Your task to perform on an android device: Turn off the flashlight Image 0: 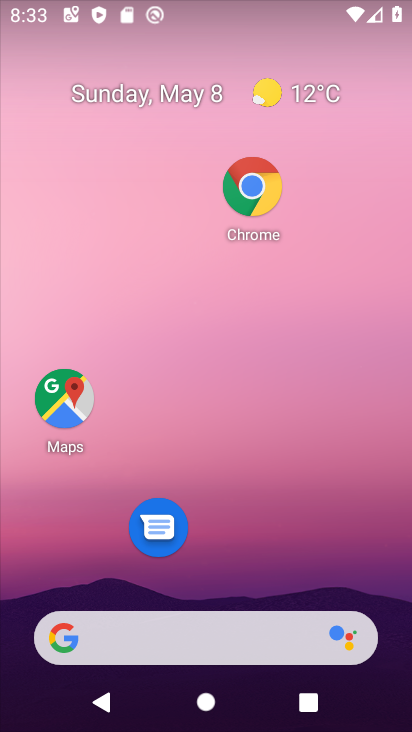
Step 0: drag from (254, 536) to (281, 321)
Your task to perform on an android device: Turn off the flashlight Image 1: 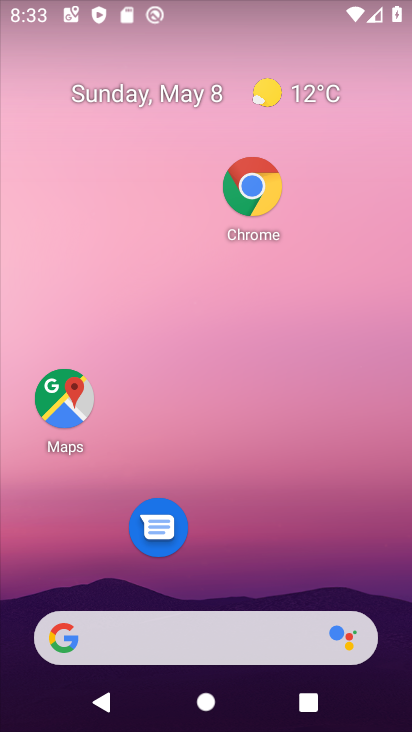
Step 1: drag from (352, 493) to (348, 266)
Your task to perform on an android device: Turn off the flashlight Image 2: 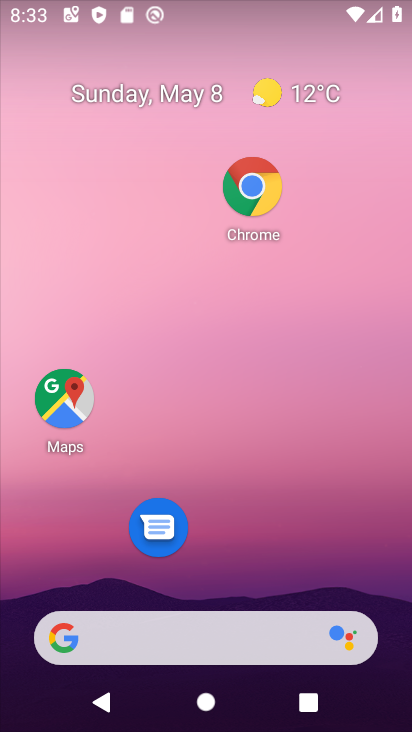
Step 2: drag from (297, 546) to (334, 311)
Your task to perform on an android device: Turn off the flashlight Image 3: 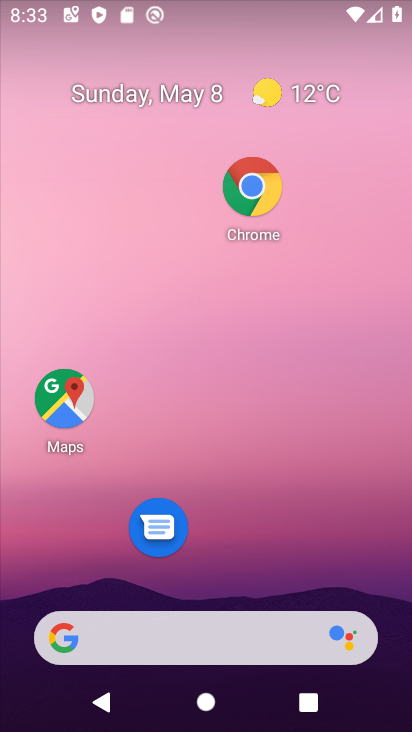
Step 3: drag from (291, 585) to (350, 165)
Your task to perform on an android device: Turn off the flashlight Image 4: 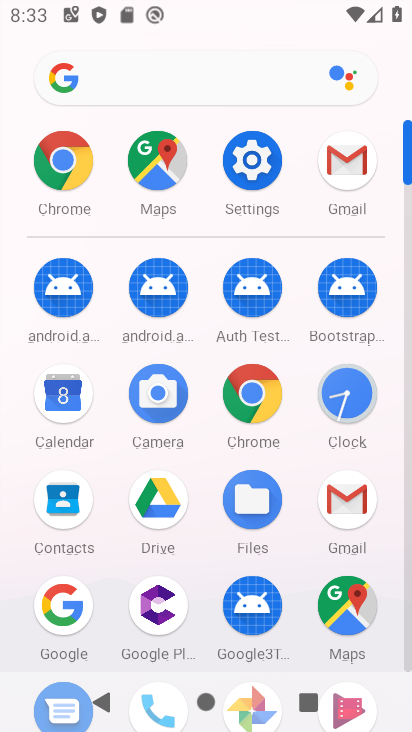
Step 4: click (246, 147)
Your task to perform on an android device: Turn off the flashlight Image 5: 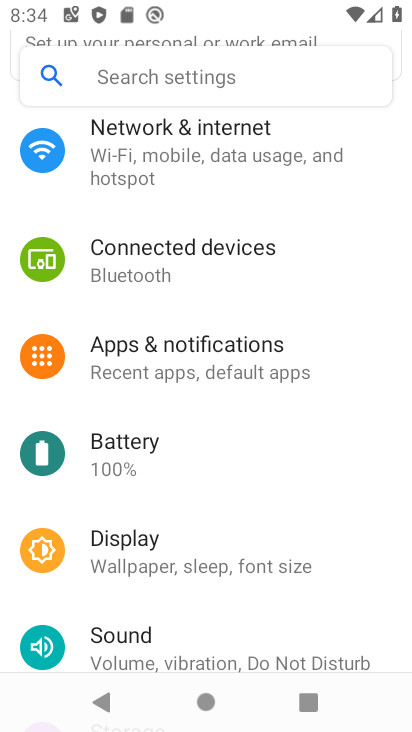
Step 5: task complete